Your task to perform on an android device: Is it going to rain this weekend? Image 0: 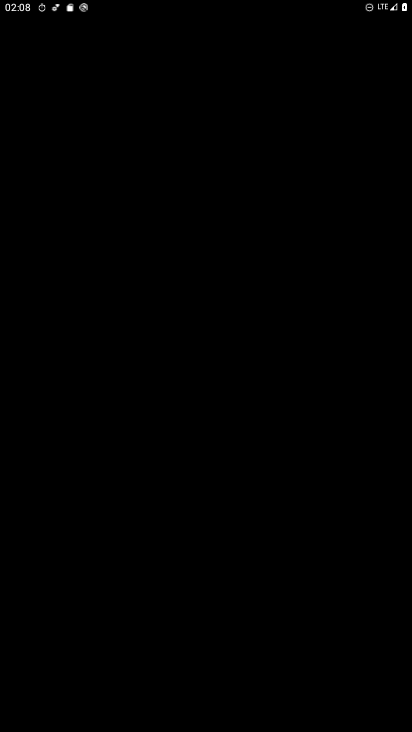
Step 0: drag from (304, 571) to (218, 25)
Your task to perform on an android device: Is it going to rain this weekend? Image 1: 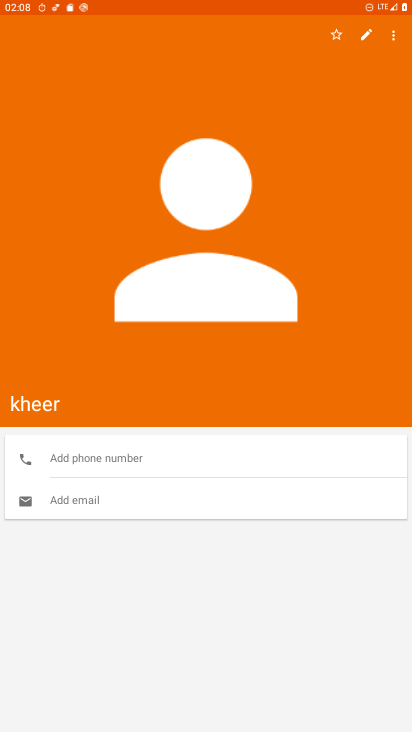
Step 1: press home button
Your task to perform on an android device: Is it going to rain this weekend? Image 2: 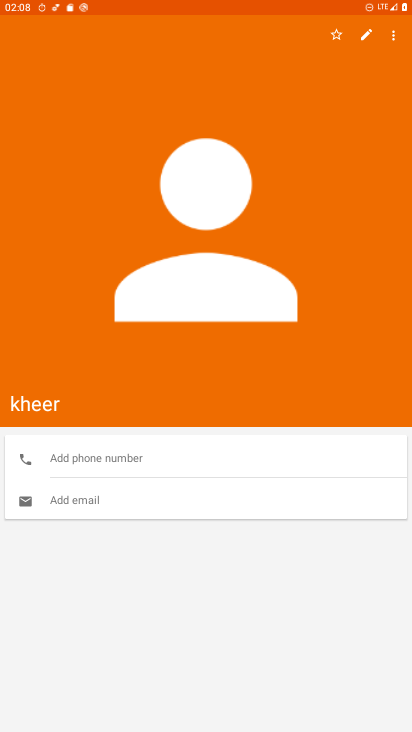
Step 2: drag from (218, 25) to (394, 532)
Your task to perform on an android device: Is it going to rain this weekend? Image 3: 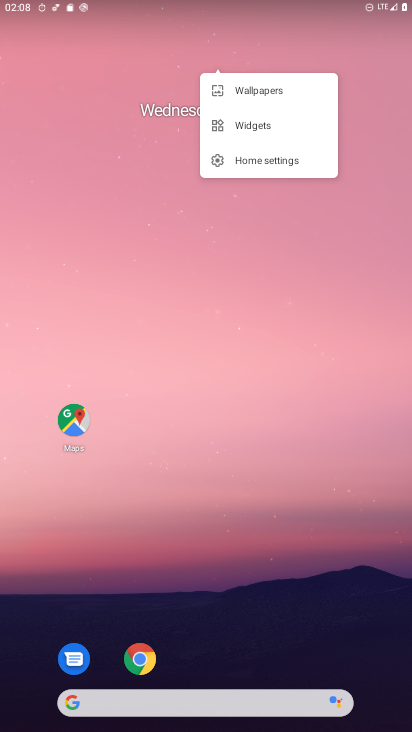
Step 3: click (292, 567)
Your task to perform on an android device: Is it going to rain this weekend? Image 4: 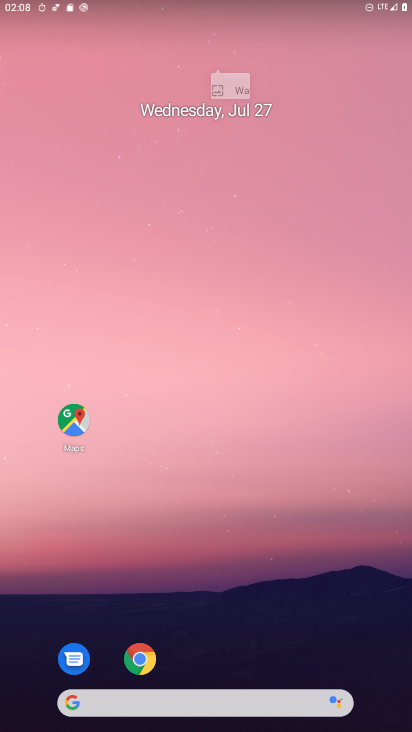
Step 4: click (293, 564)
Your task to perform on an android device: Is it going to rain this weekend? Image 5: 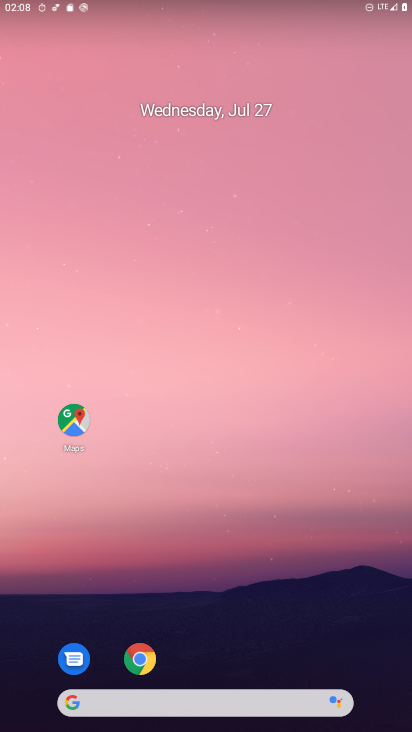
Step 5: drag from (294, 549) to (215, 71)
Your task to perform on an android device: Is it going to rain this weekend? Image 6: 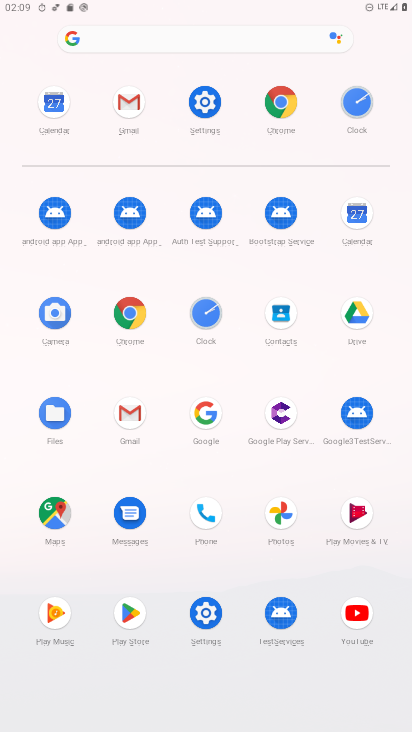
Step 6: click (278, 103)
Your task to perform on an android device: Is it going to rain this weekend? Image 7: 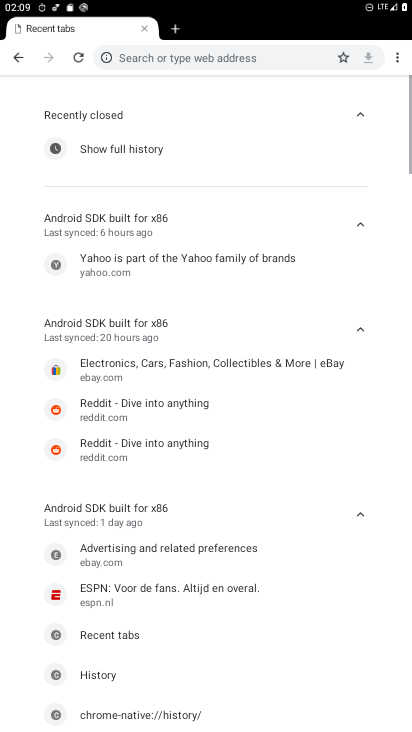
Step 7: click (197, 52)
Your task to perform on an android device: Is it going to rain this weekend? Image 8: 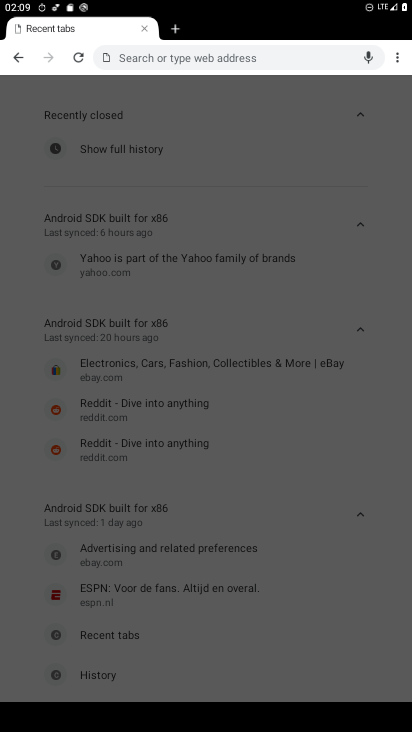
Step 8: type "weather"
Your task to perform on an android device: Is it going to rain this weekend? Image 9: 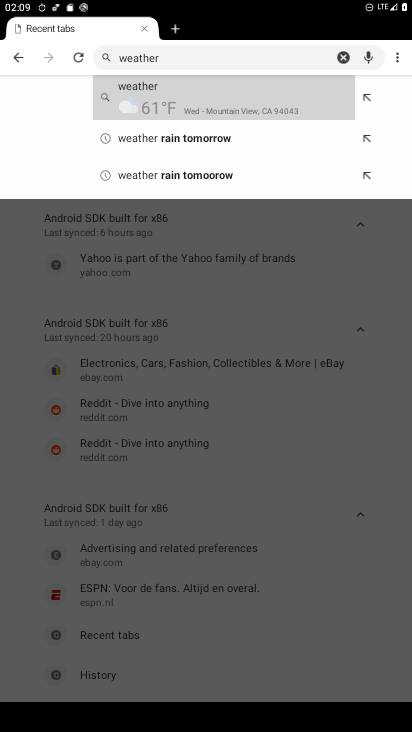
Step 9: click (179, 89)
Your task to perform on an android device: Is it going to rain this weekend? Image 10: 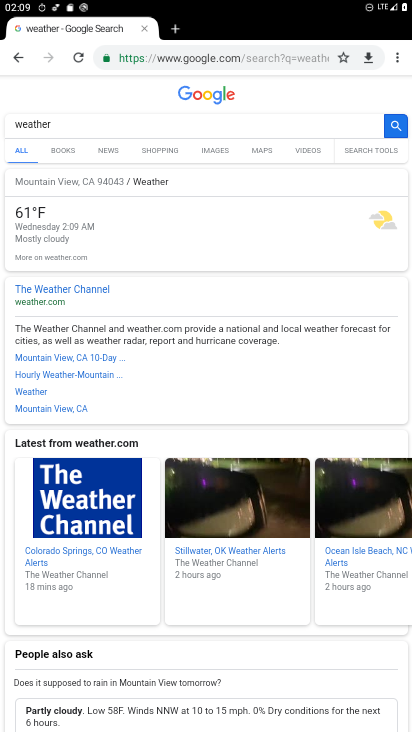
Step 10: click (238, 123)
Your task to perform on an android device: Is it going to rain this weekend? Image 11: 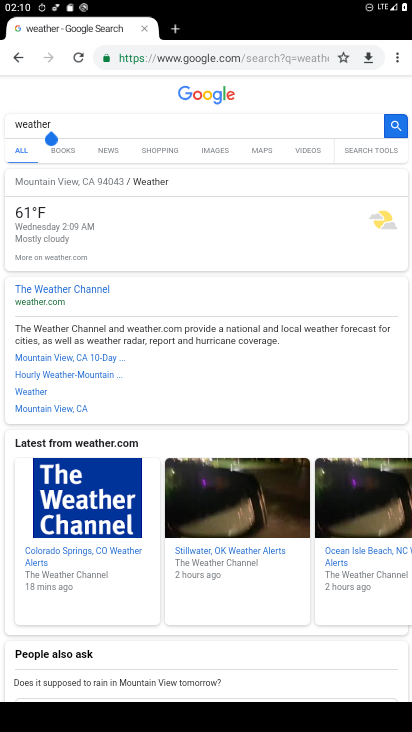
Step 11: type "  weekend"
Your task to perform on an android device: Is it going to rain this weekend? Image 12: 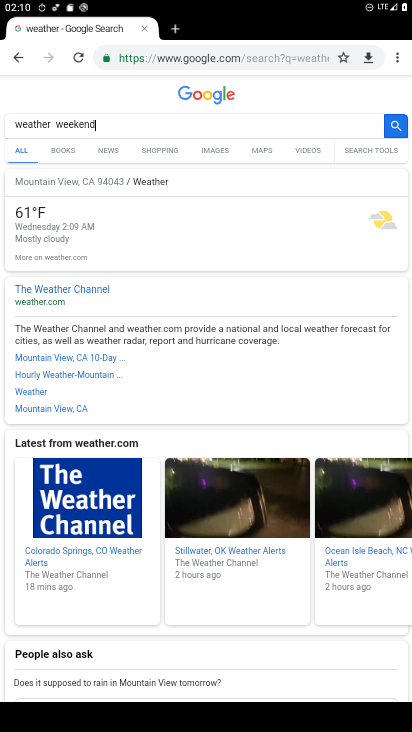
Step 12: press enter
Your task to perform on an android device: Is it going to rain this weekend? Image 13: 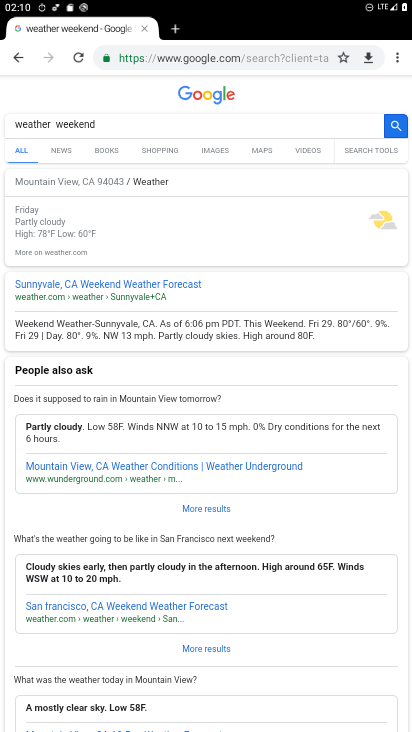
Step 13: task complete